Your task to perform on an android device: Open CNN.com Image 0: 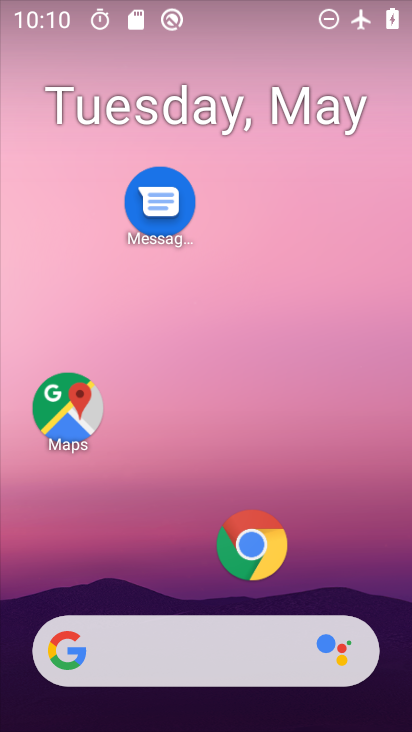
Step 0: click (233, 537)
Your task to perform on an android device: Open CNN.com Image 1: 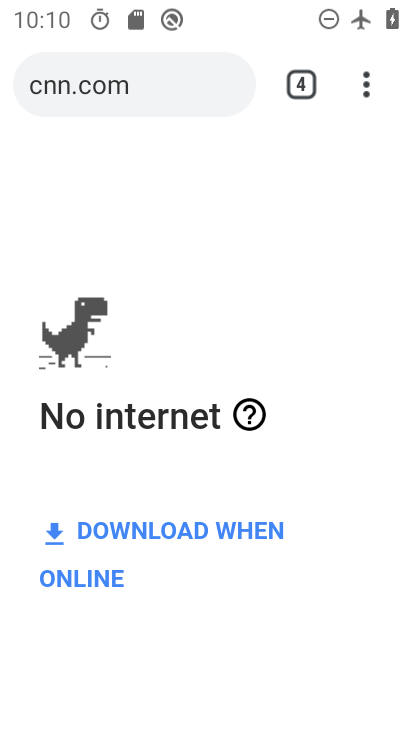
Step 1: click (304, 86)
Your task to perform on an android device: Open CNN.com Image 2: 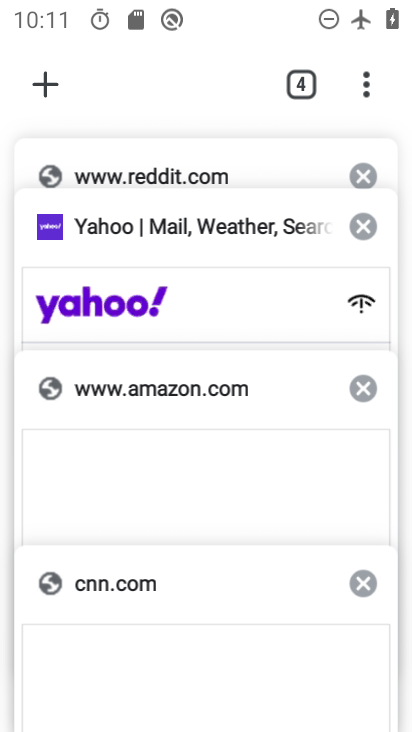
Step 2: click (46, 92)
Your task to perform on an android device: Open CNN.com Image 3: 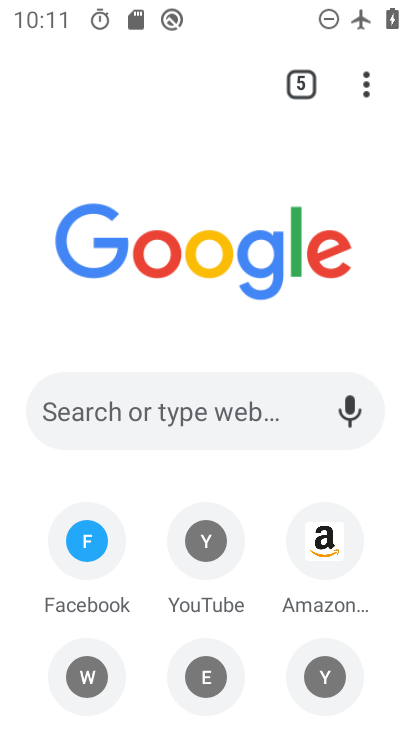
Step 3: click (175, 416)
Your task to perform on an android device: Open CNN.com Image 4: 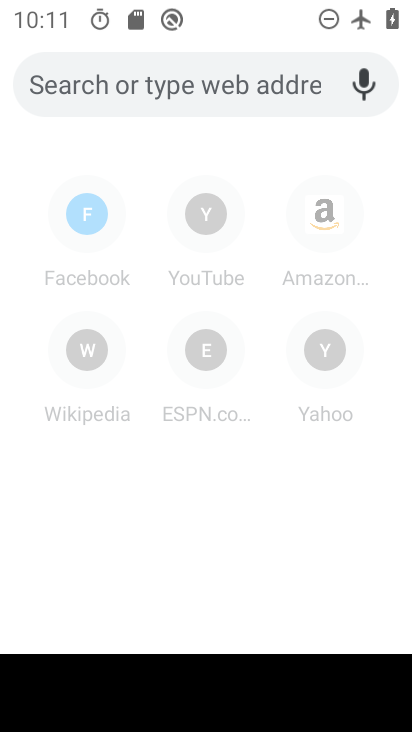
Step 4: type "CNN.com"
Your task to perform on an android device: Open CNN.com Image 5: 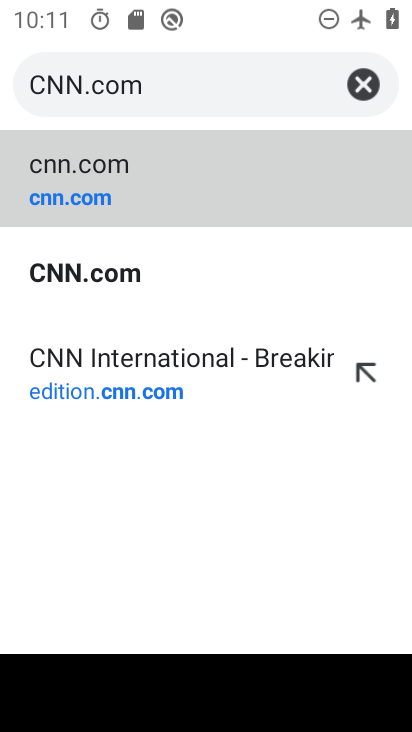
Step 5: click (156, 209)
Your task to perform on an android device: Open CNN.com Image 6: 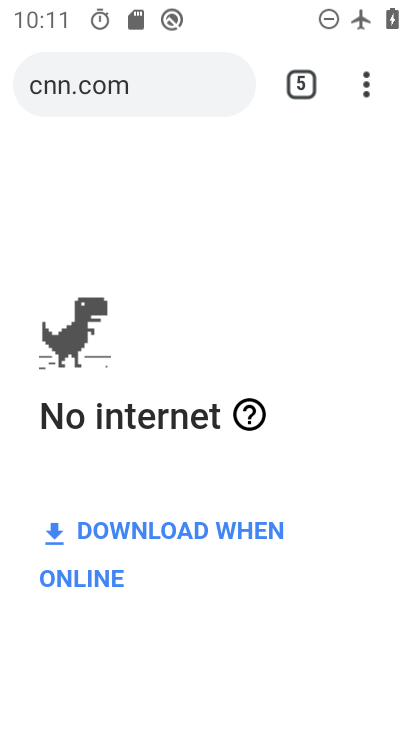
Step 6: task complete